Your task to perform on an android device: Open calendar and show me the third week of next month Image 0: 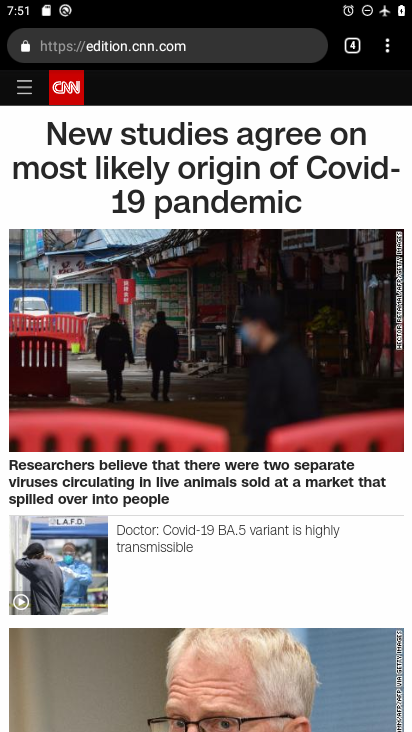
Step 0: press home button
Your task to perform on an android device: Open calendar and show me the third week of next month Image 1: 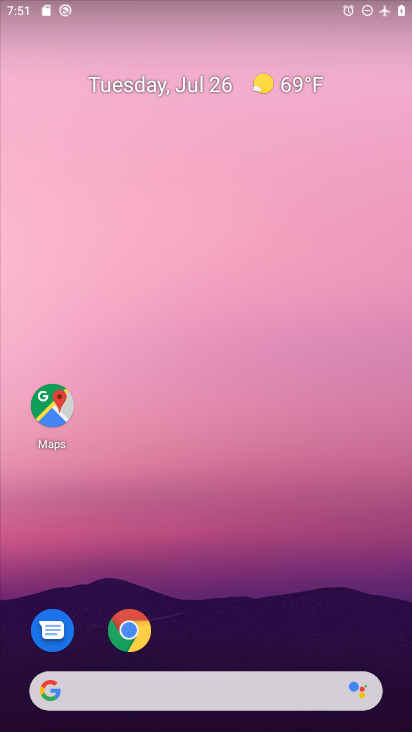
Step 1: drag from (266, 600) to (272, 115)
Your task to perform on an android device: Open calendar and show me the third week of next month Image 2: 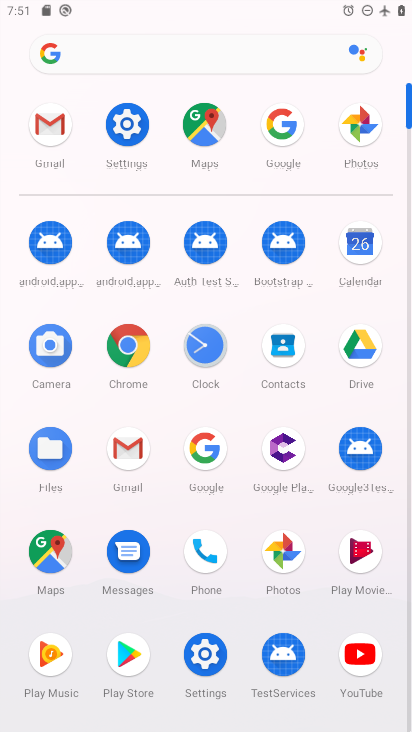
Step 2: click (368, 261)
Your task to perform on an android device: Open calendar and show me the third week of next month Image 3: 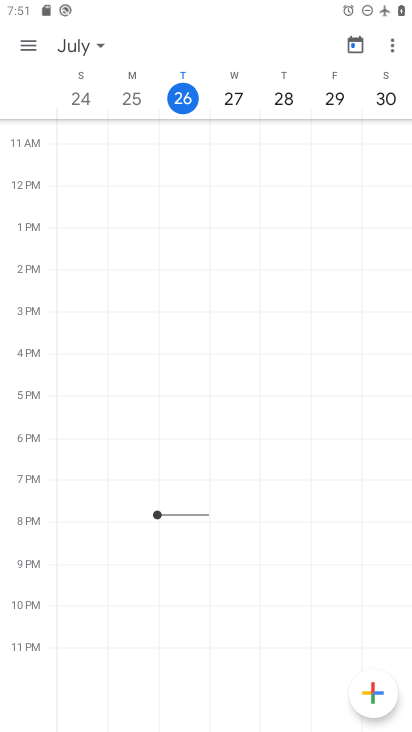
Step 3: click (83, 44)
Your task to perform on an android device: Open calendar and show me the third week of next month Image 4: 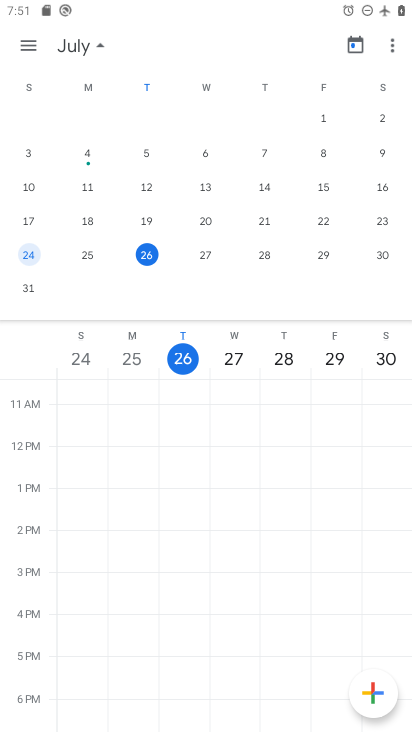
Step 4: drag from (341, 195) to (1, 209)
Your task to perform on an android device: Open calendar and show me the third week of next month Image 5: 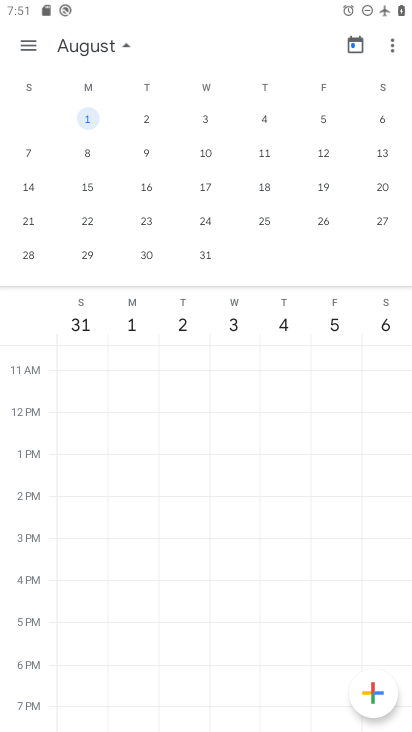
Step 5: click (28, 191)
Your task to perform on an android device: Open calendar and show me the third week of next month Image 6: 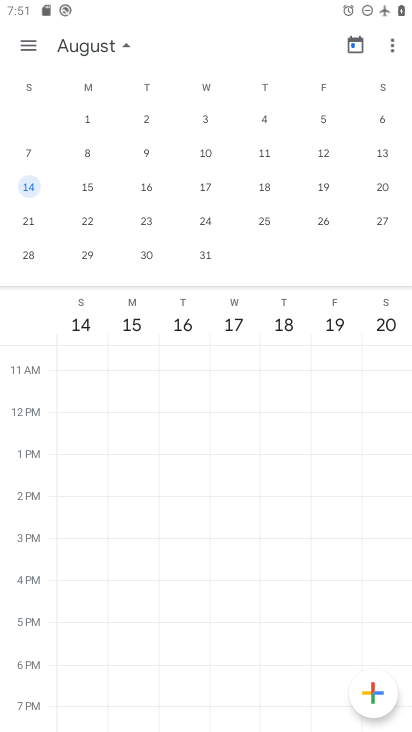
Step 6: click (125, 37)
Your task to perform on an android device: Open calendar and show me the third week of next month Image 7: 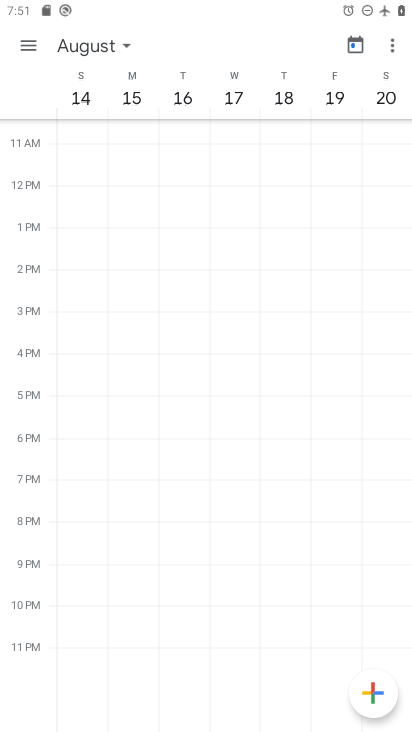
Step 7: task complete